Your task to perform on an android device: turn pop-ups off in chrome Image 0: 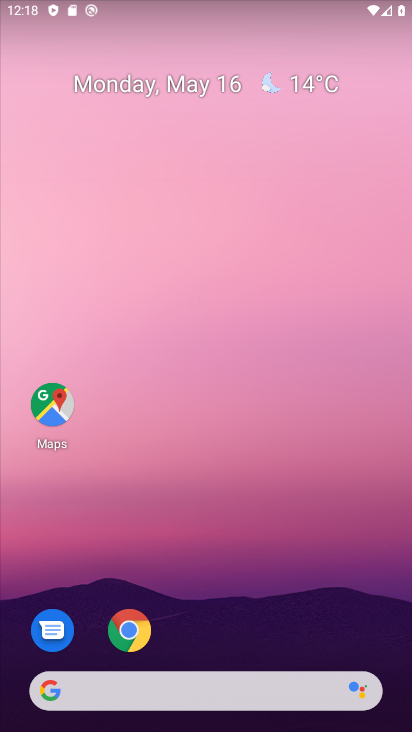
Step 0: click (117, 635)
Your task to perform on an android device: turn pop-ups off in chrome Image 1: 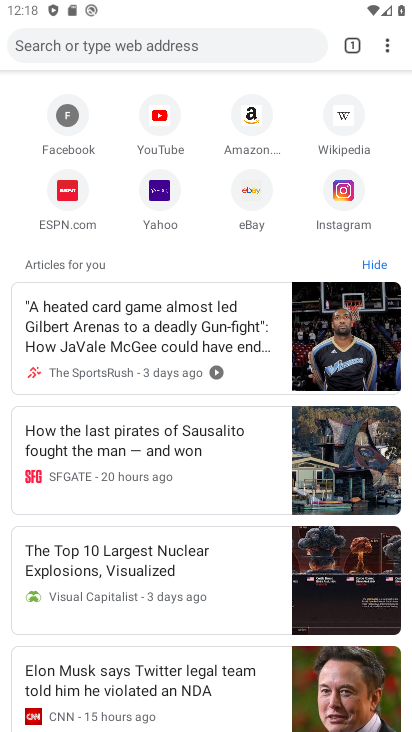
Step 1: click (383, 37)
Your task to perform on an android device: turn pop-ups off in chrome Image 2: 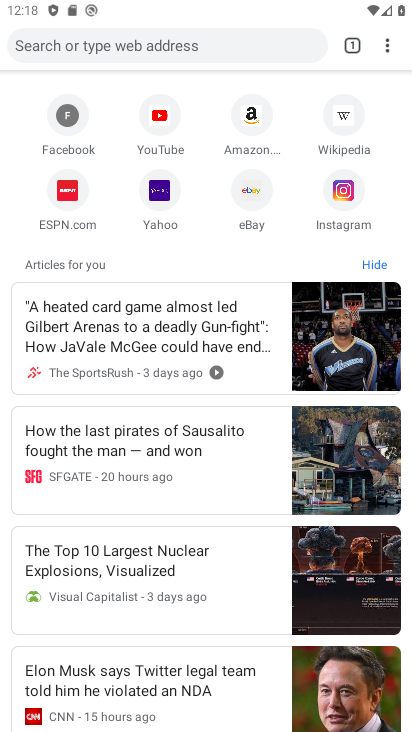
Step 2: click (384, 37)
Your task to perform on an android device: turn pop-ups off in chrome Image 3: 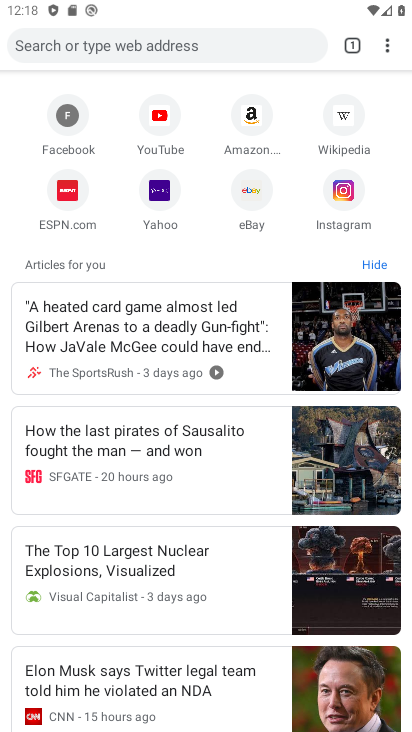
Step 3: click (387, 58)
Your task to perform on an android device: turn pop-ups off in chrome Image 4: 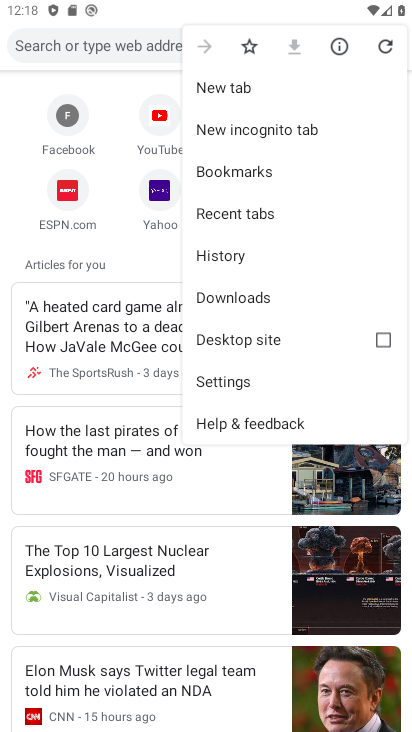
Step 4: click (256, 391)
Your task to perform on an android device: turn pop-ups off in chrome Image 5: 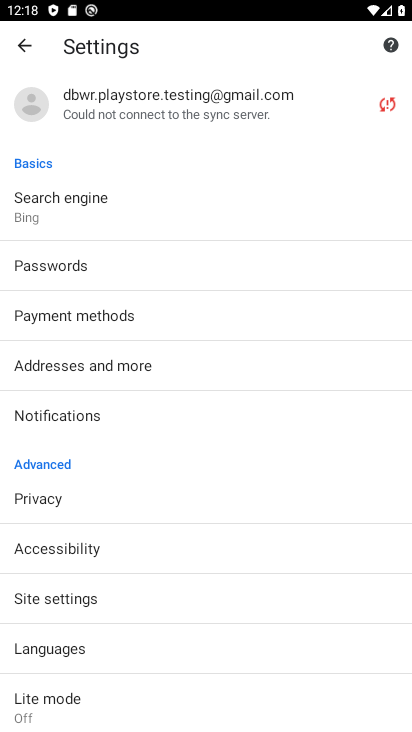
Step 5: drag from (206, 656) to (156, 507)
Your task to perform on an android device: turn pop-ups off in chrome Image 6: 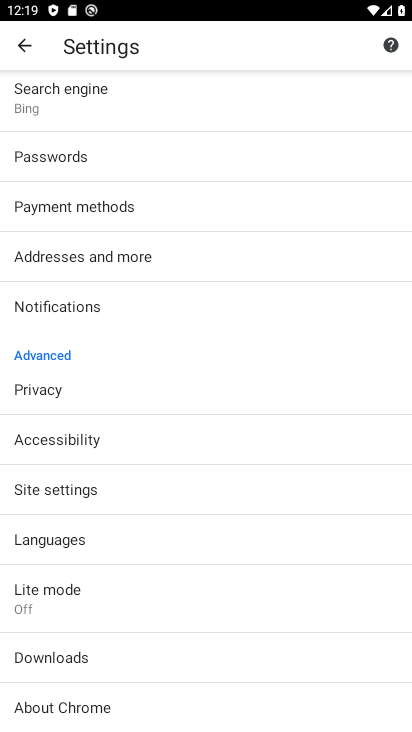
Step 6: click (87, 480)
Your task to perform on an android device: turn pop-ups off in chrome Image 7: 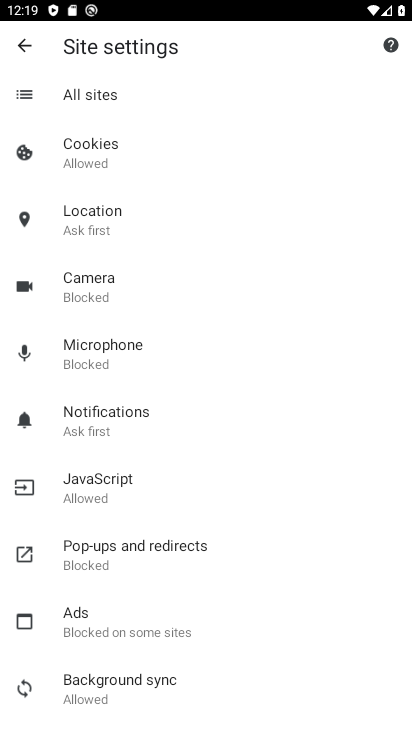
Step 7: click (153, 555)
Your task to perform on an android device: turn pop-ups off in chrome Image 8: 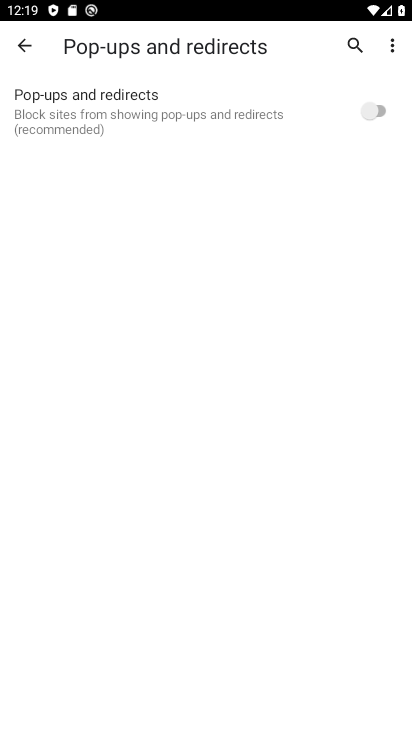
Step 8: task complete